Your task to perform on an android device: move an email to a new category in the gmail app Image 0: 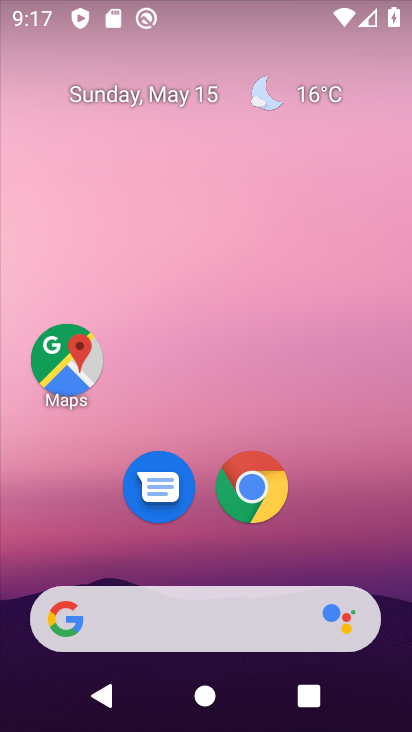
Step 0: drag from (404, 638) to (361, 63)
Your task to perform on an android device: move an email to a new category in the gmail app Image 1: 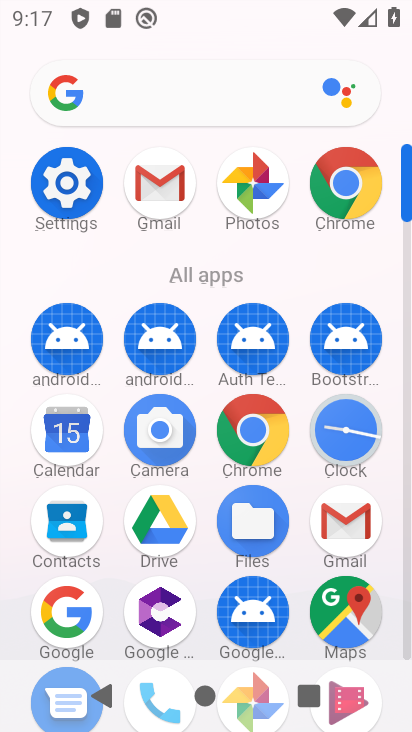
Step 1: click (408, 652)
Your task to perform on an android device: move an email to a new category in the gmail app Image 2: 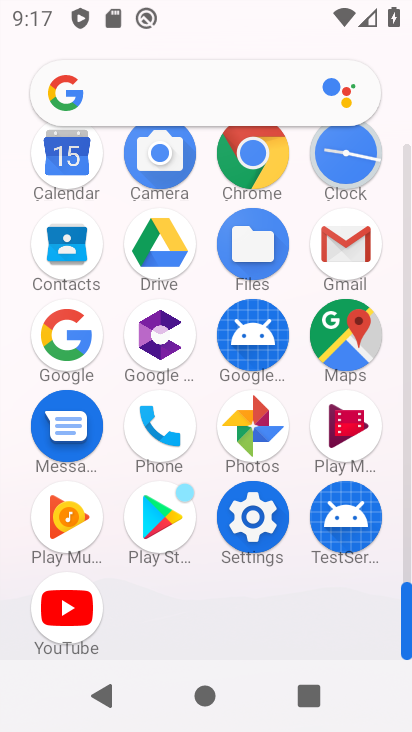
Step 2: click (347, 244)
Your task to perform on an android device: move an email to a new category in the gmail app Image 3: 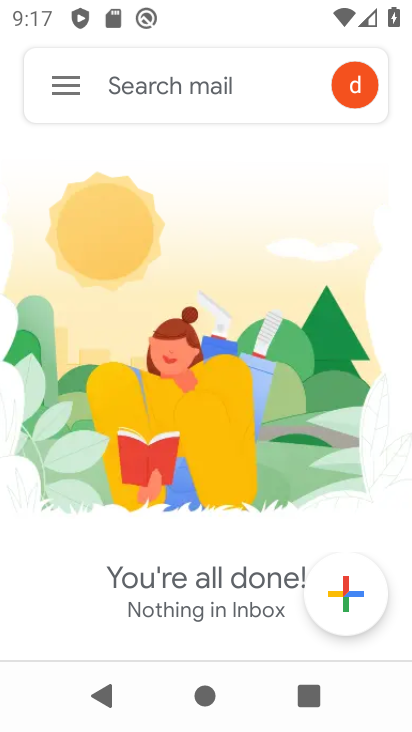
Step 3: click (68, 83)
Your task to perform on an android device: move an email to a new category in the gmail app Image 4: 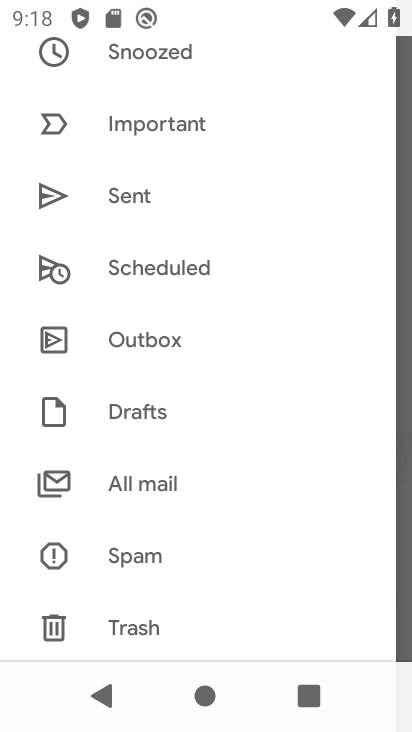
Step 4: drag from (288, 196) to (273, 564)
Your task to perform on an android device: move an email to a new category in the gmail app Image 5: 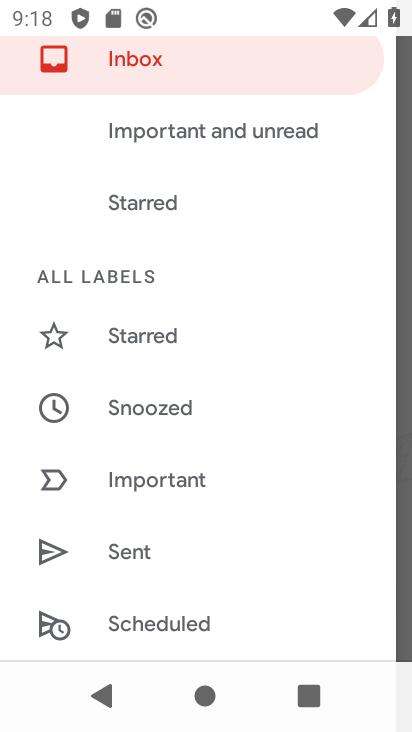
Step 5: click (145, 58)
Your task to perform on an android device: move an email to a new category in the gmail app Image 6: 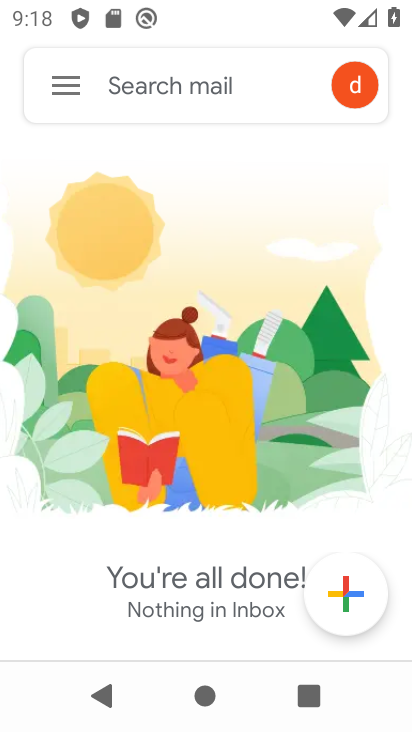
Step 6: task complete